Your task to perform on an android device: Open calendar and show me the third week of next month Image 0: 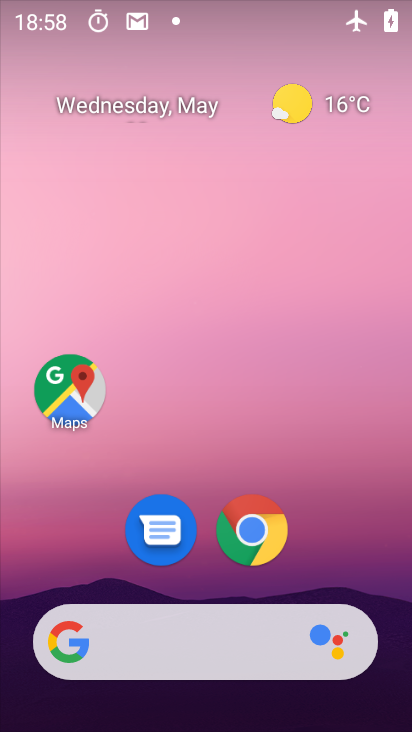
Step 0: drag from (135, 561) to (263, 195)
Your task to perform on an android device: Open calendar and show me the third week of next month Image 1: 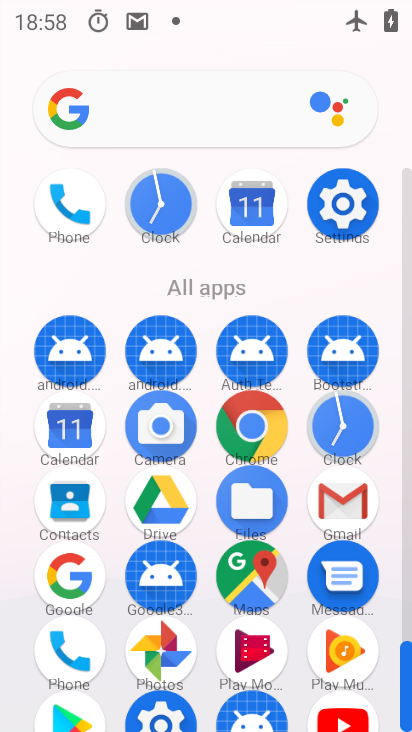
Step 1: click (58, 433)
Your task to perform on an android device: Open calendar and show me the third week of next month Image 2: 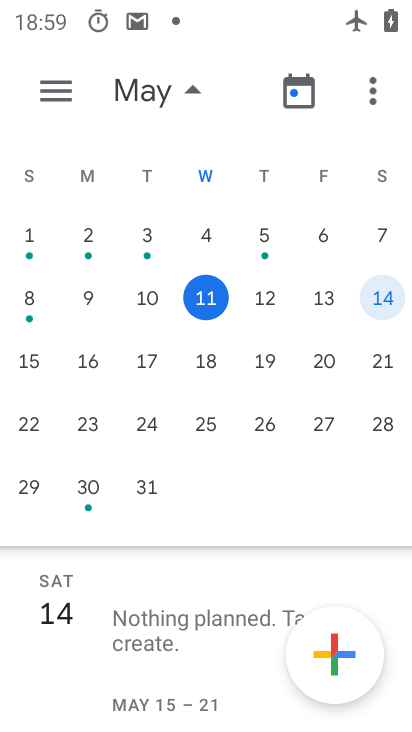
Step 2: drag from (362, 456) to (35, 159)
Your task to perform on an android device: Open calendar and show me the third week of next month Image 3: 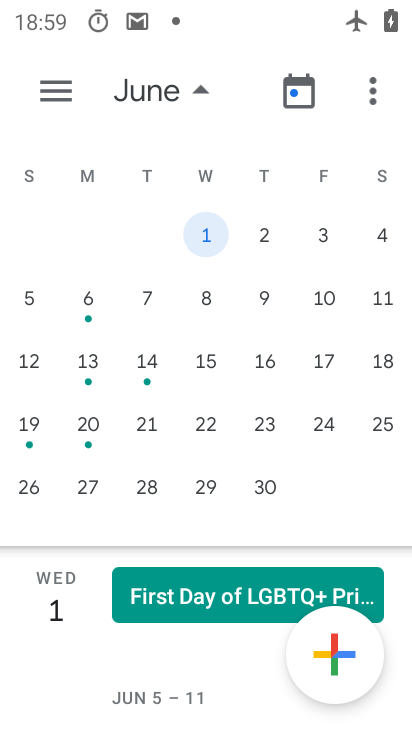
Step 3: click (273, 351)
Your task to perform on an android device: Open calendar and show me the third week of next month Image 4: 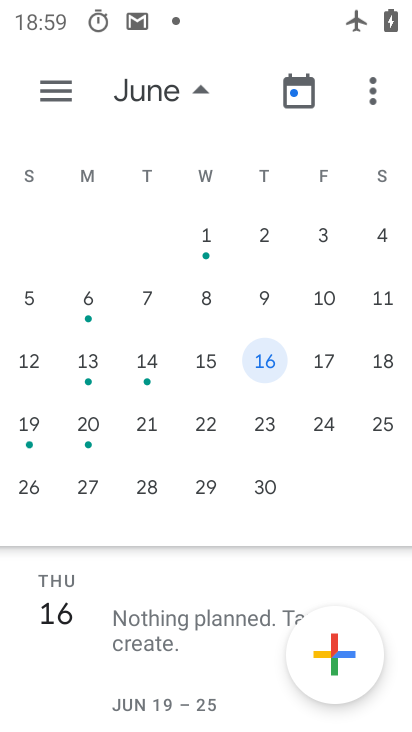
Step 4: click (45, 91)
Your task to perform on an android device: Open calendar and show me the third week of next month Image 5: 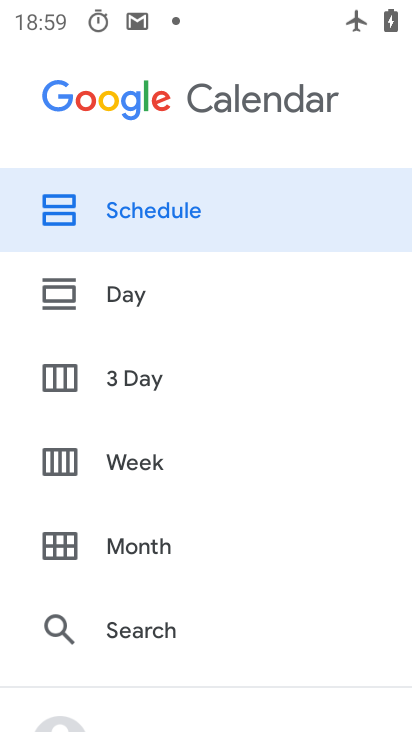
Step 5: click (163, 450)
Your task to perform on an android device: Open calendar and show me the third week of next month Image 6: 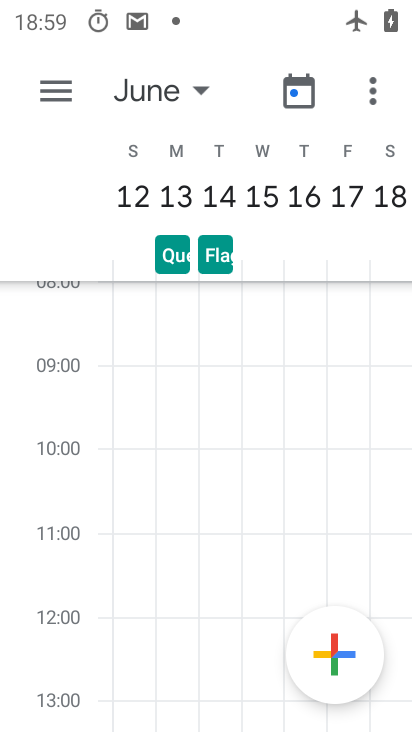
Step 6: click (138, 200)
Your task to perform on an android device: Open calendar and show me the third week of next month Image 7: 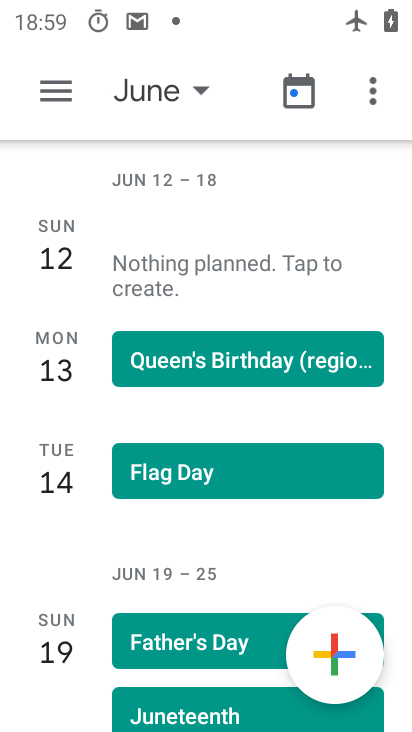
Step 7: task complete